Your task to perform on an android device: Open Yahoo.com Image 0: 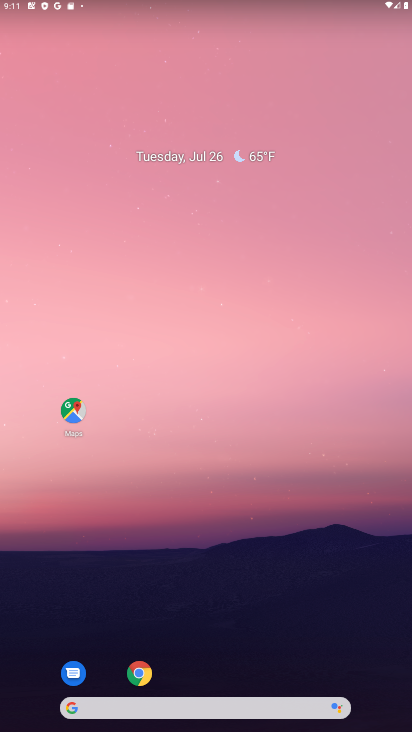
Step 0: click (139, 676)
Your task to perform on an android device: Open Yahoo.com Image 1: 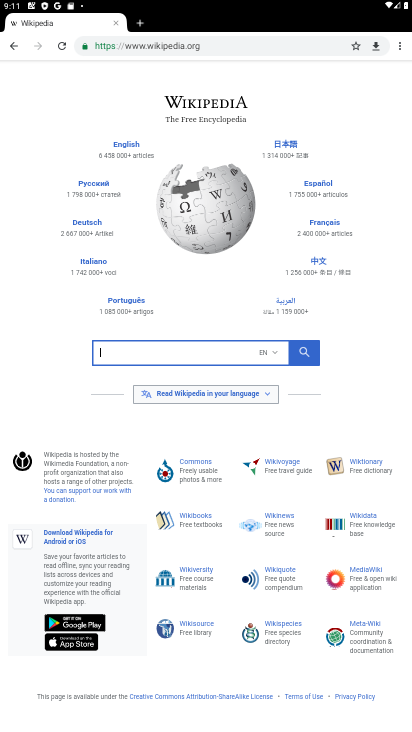
Step 1: click (219, 46)
Your task to perform on an android device: Open Yahoo.com Image 2: 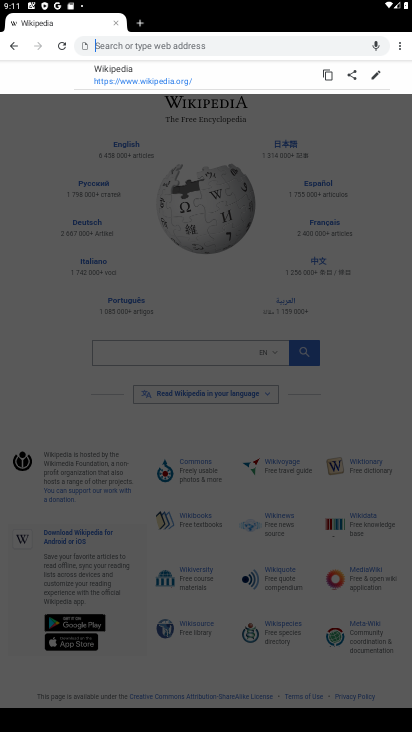
Step 2: type "yahoo.com"
Your task to perform on an android device: Open Yahoo.com Image 3: 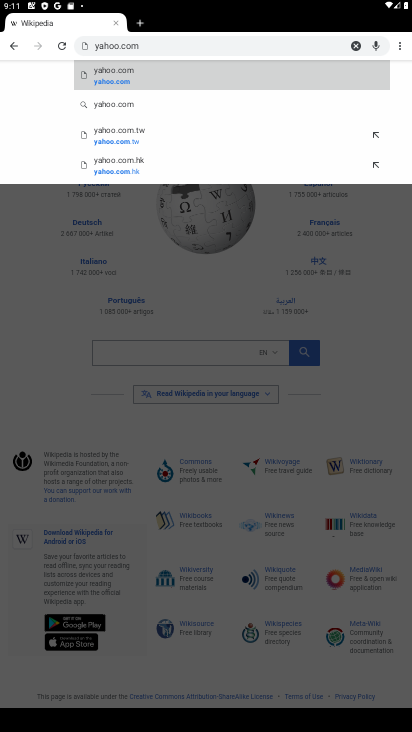
Step 3: click (113, 69)
Your task to perform on an android device: Open Yahoo.com Image 4: 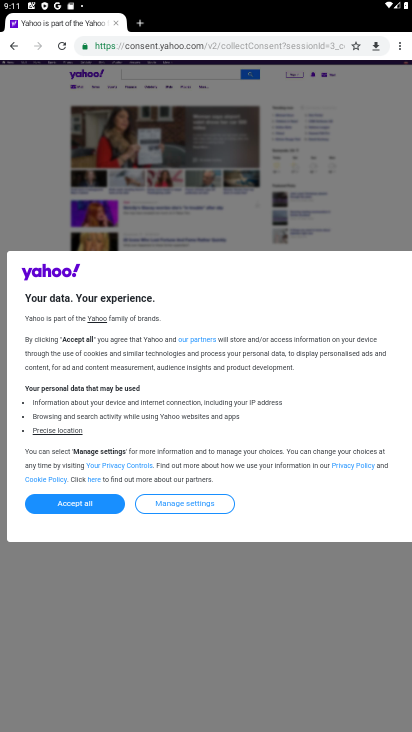
Step 4: click (70, 501)
Your task to perform on an android device: Open Yahoo.com Image 5: 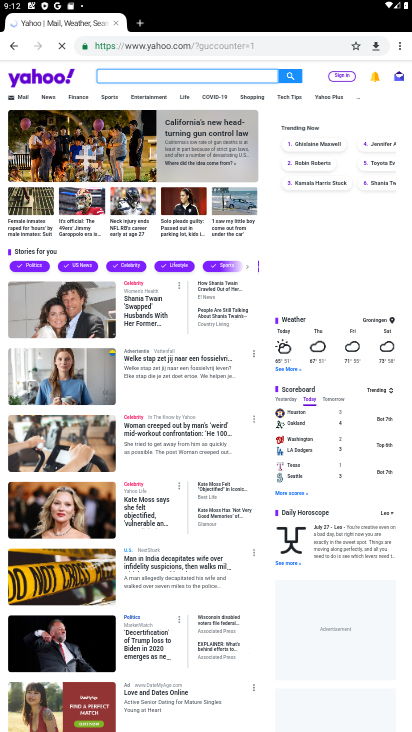
Step 5: task complete